Your task to perform on an android device: clear all cookies in the chrome app Image 0: 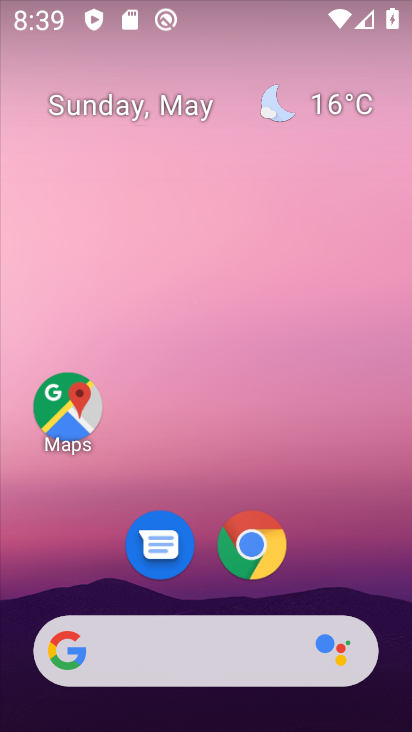
Step 0: drag from (329, 576) to (297, 72)
Your task to perform on an android device: clear all cookies in the chrome app Image 1: 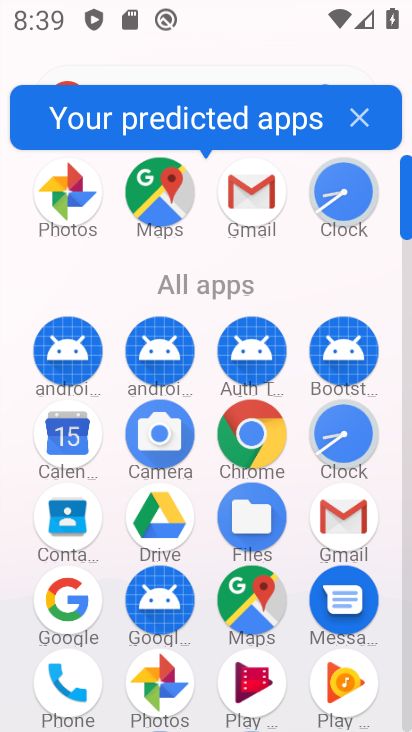
Step 1: click (246, 439)
Your task to perform on an android device: clear all cookies in the chrome app Image 2: 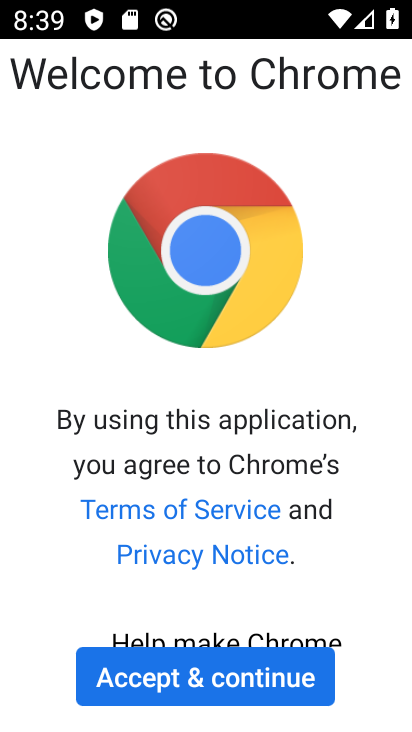
Step 2: click (235, 678)
Your task to perform on an android device: clear all cookies in the chrome app Image 3: 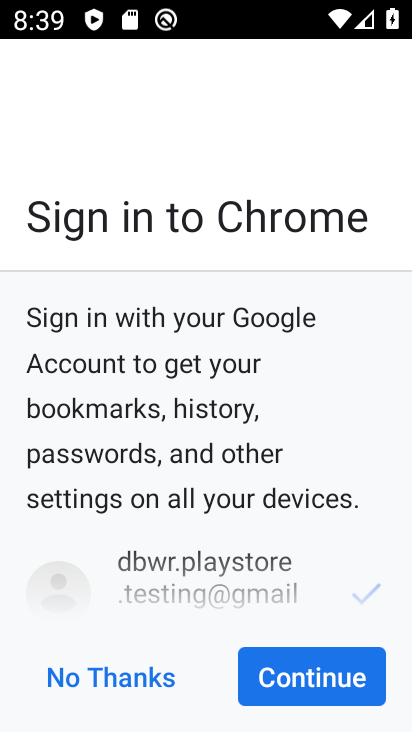
Step 3: click (340, 676)
Your task to perform on an android device: clear all cookies in the chrome app Image 4: 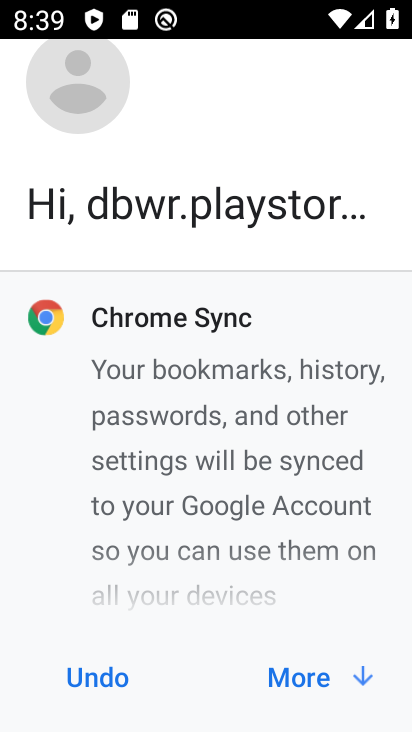
Step 4: click (361, 676)
Your task to perform on an android device: clear all cookies in the chrome app Image 5: 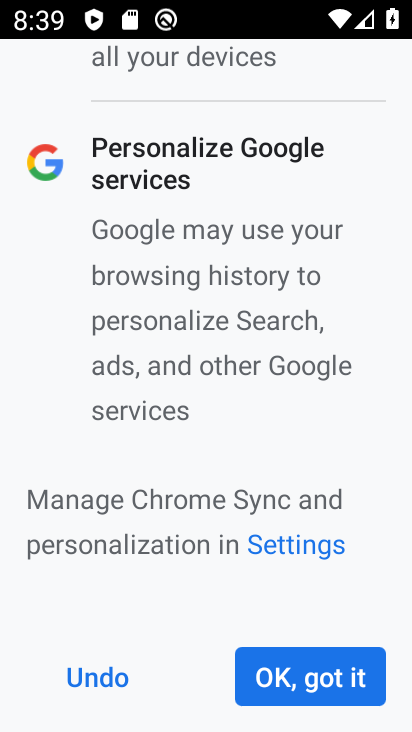
Step 5: click (338, 672)
Your task to perform on an android device: clear all cookies in the chrome app Image 6: 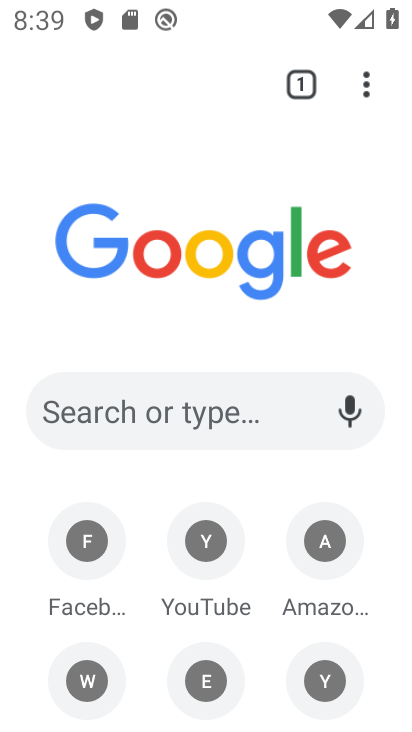
Step 6: drag from (368, 88) to (105, 591)
Your task to perform on an android device: clear all cookies in the chrome app Image 7: 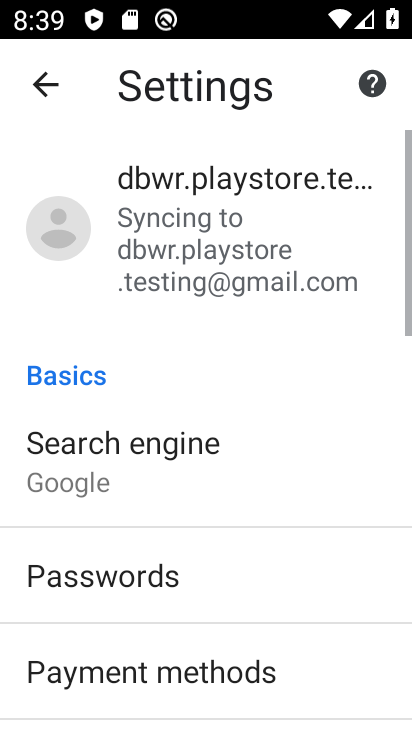
Step 7: drag from (291, 615) to (278, 205)
Your task to perform on an android device: clear all cookies in the chrome app Image 8: 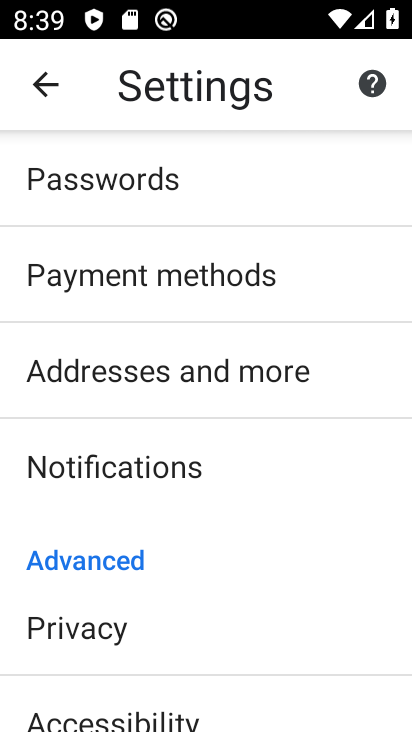
Step 8: drag from (300, 664) to (319, 197)
Your task to perform on an android device: clear all cookies in the chrome app Image 9: 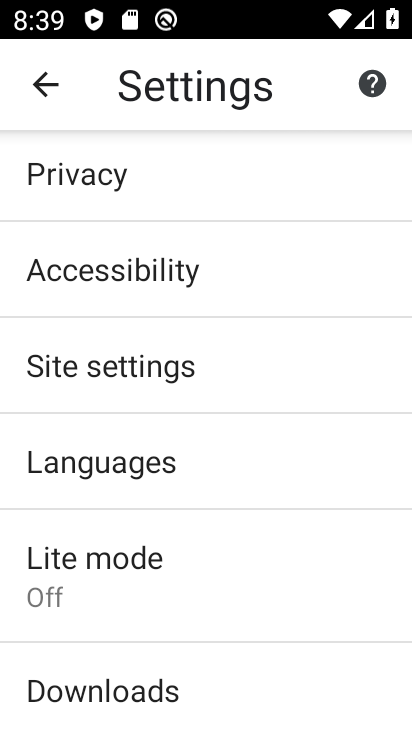
Step 9: click (80, 180)
Your task to perform on an android device: clear all cookies in the chrome app Image 10: 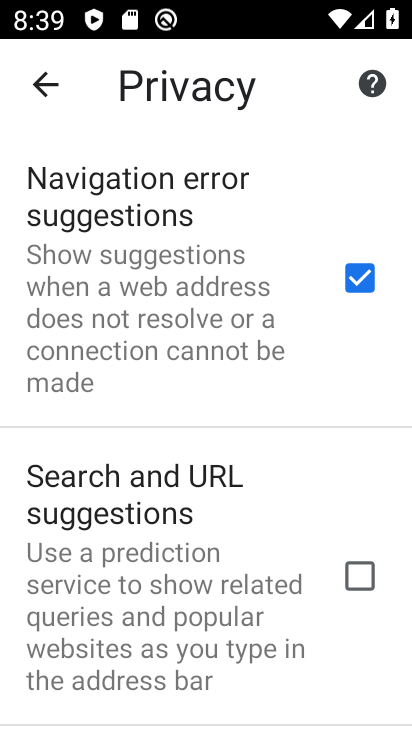
Step 10: drag from (283, 564) to (274, 197)
Your task to perform on an android device: clear all cookies in the chrome app Image 11: 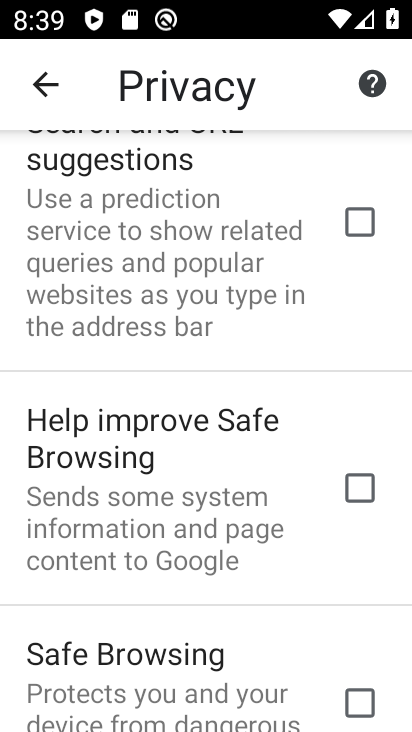
Step 11: drag from (258, 605) to (296, 265)
Your task to perform on an android device: clear all cookies in the chrome app Image 12: 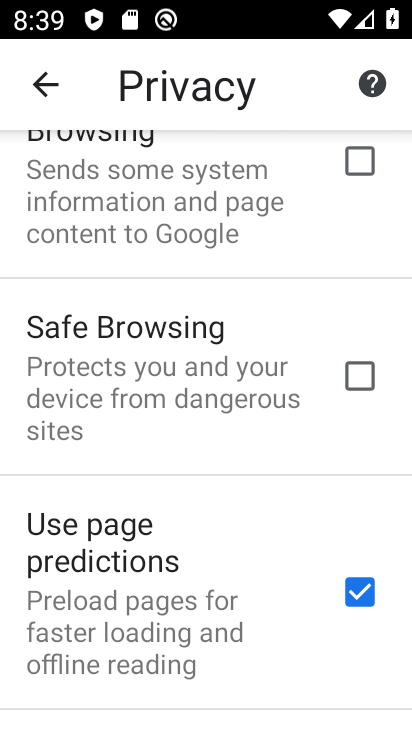
Step 12: drag from (268, 670) to (298, 399)
Your task to perform on an android device: clear all cookies in the chrome app Image 13: 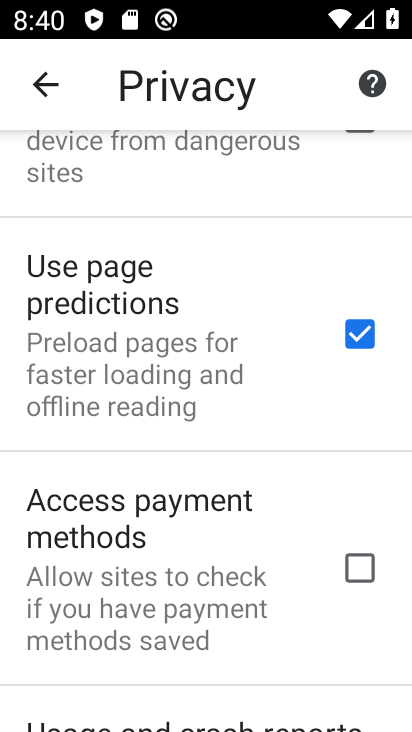
Step 13: drag from (266, 652) to (257, 372)
Your task to perform on an android device: clear all cookies in the chrome app Image 14: 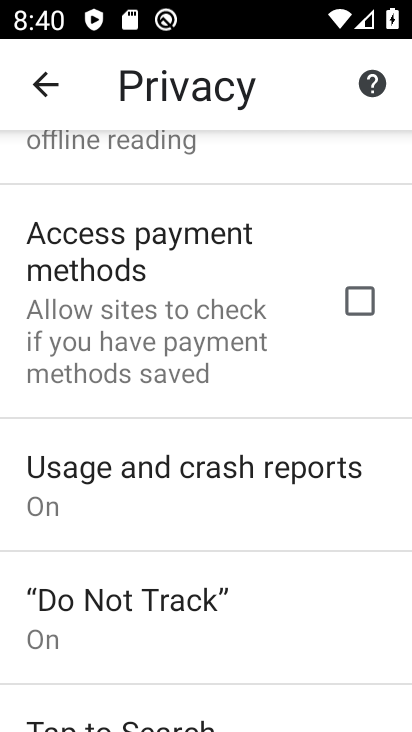
Step 14: drag from (237, 678) to (235, 346)
Your task to perform on an android device: clear all cookies in the chrome app Image 15: 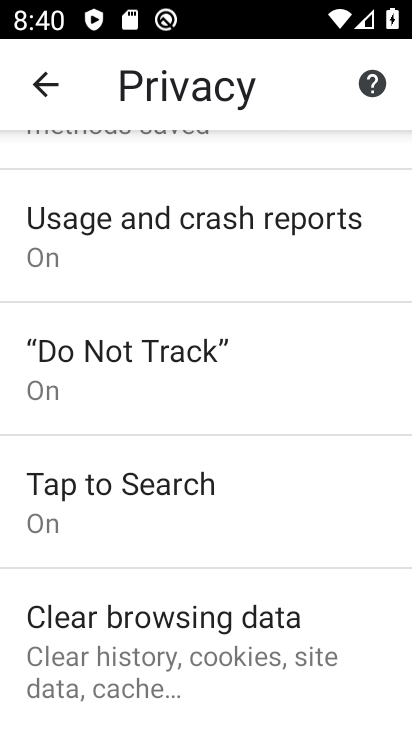
Step 15: click (106, 636)
Your task to perform on an android device: clear all cookies in the chrome app Image 16: 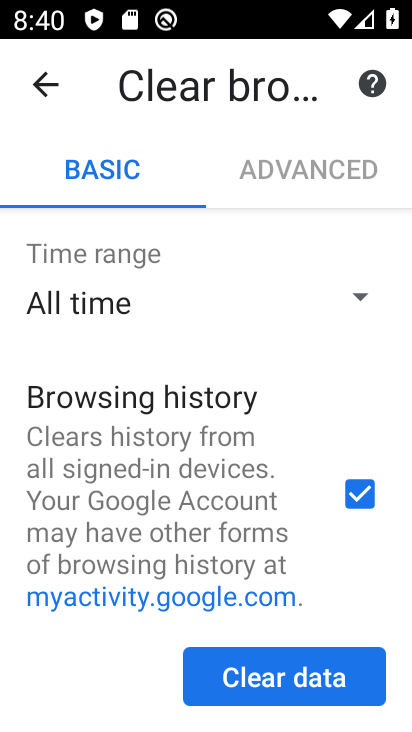
Step 16: drag from (240, 449) to (260, 252)
Your task to perform on an android device: clear all cookies in the chrome app Image 17: 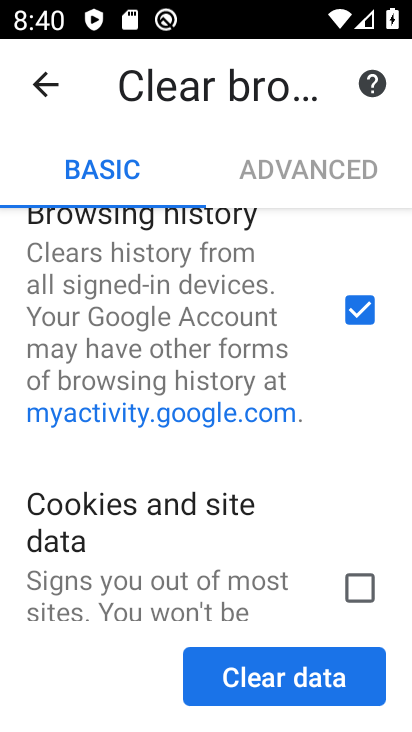
Step 17: click (370, 584)
Your task to perform on an android device: clear all cookies in the chrome app Image 18: 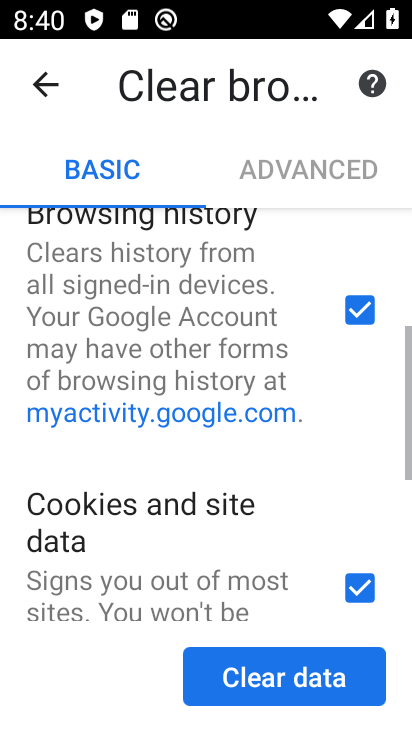
Step 18: click (323, 672)
Your task to perform on an android device: clear all cookies in the chrome app Image 19: 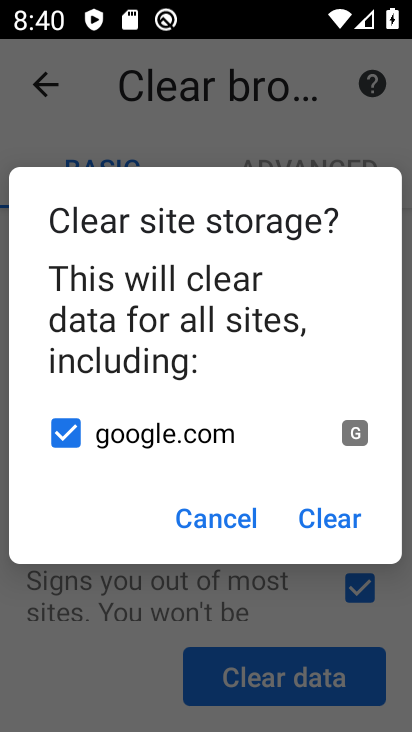
Step 19: click (333, 517)
Your task to perform on an android device: clear all cookies in the chrome app Image 20: 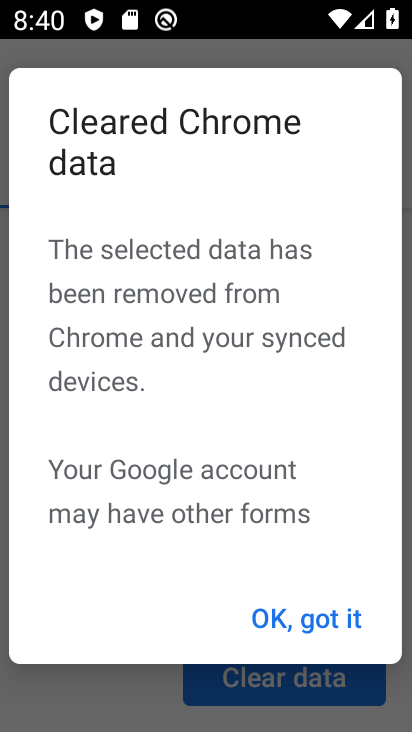
Step 20: click (324, 615)
Your task to perform on an android device: clear all cookies in the chrome app Image 21: 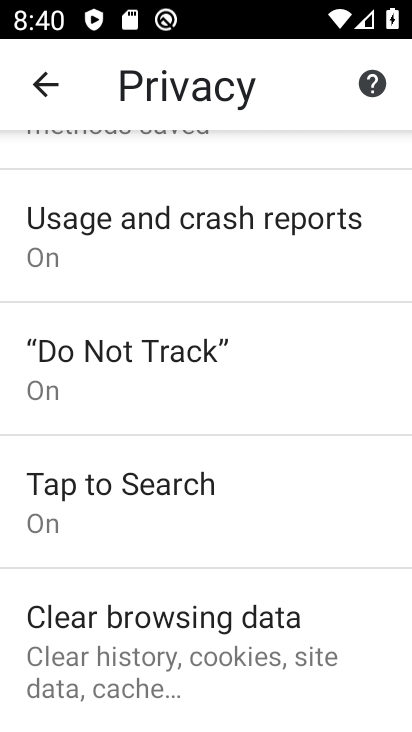
Step 21: task complete